Your task to perform on an android device: Open Google Image 0: 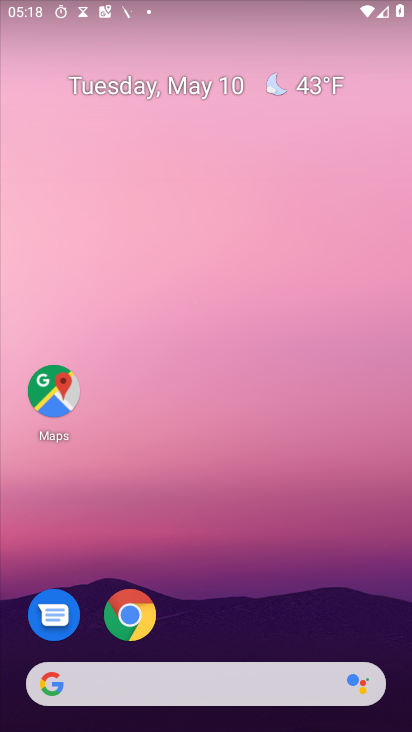
Step 0: drag from (279, 604) to (241, 51)
Your task to perform on an android device: Open Google Image 1: 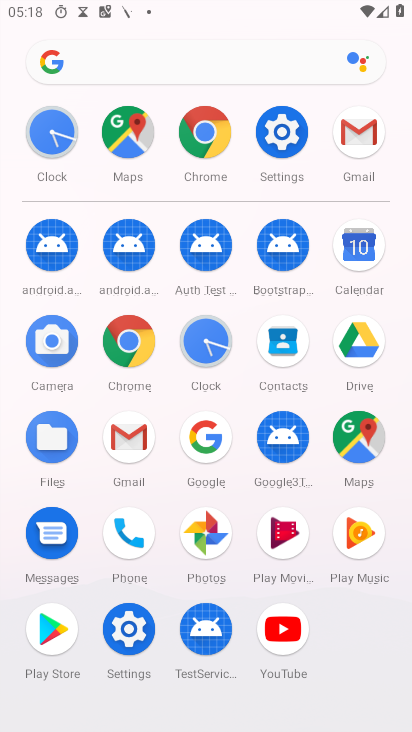
Step 1: click (134, 346)
Your task to perform on an android device: Open Google Image 2: 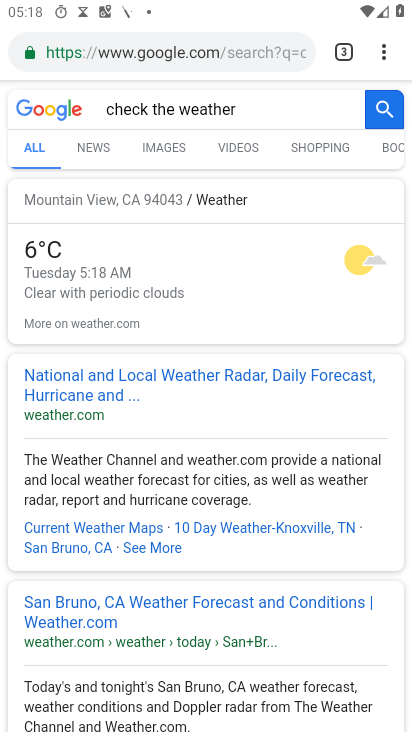
Step 2: task complete